Your task to perform on an android device: set the stopwatch Image 0: 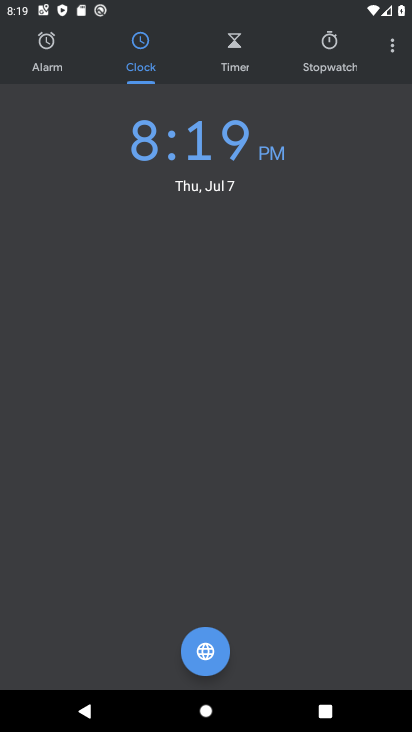
Step 0: press home button
Your task to perform on an android device: set the stopwatch Image 1: 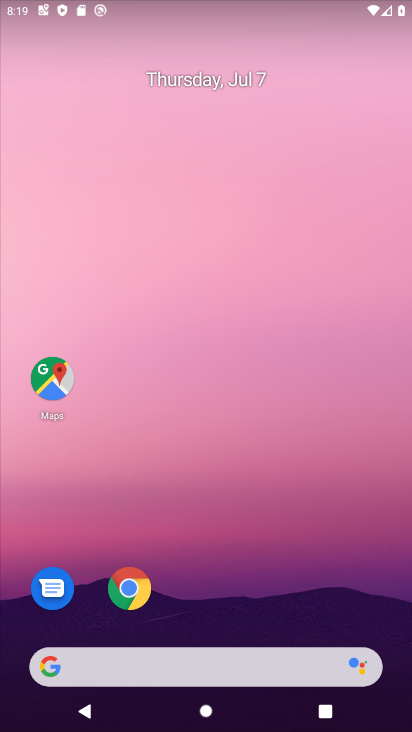
Step 1: drag from (225, 655) to (387, 92)
Your task to perform on an android device: set the stopwatch Image 2: 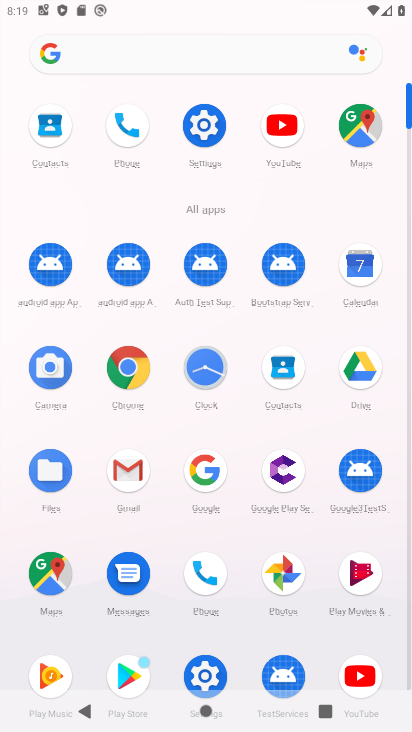
Step 2: click (204, 376)
Your task to perform on an android device: set the stopwatch Image 3: 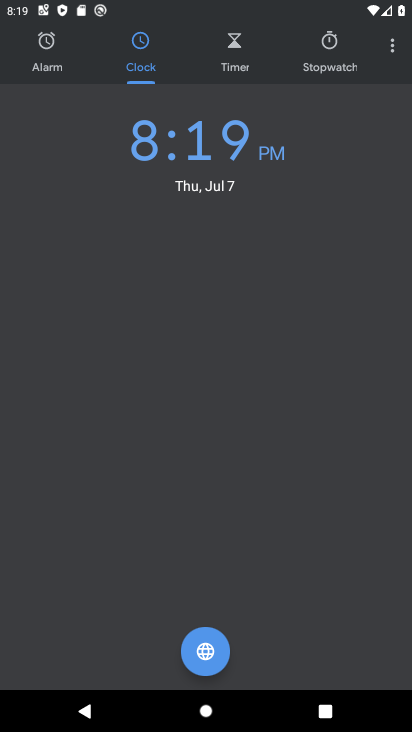
Step 3: click (327, 56)
Your task to perform on an android device: set the stopwatch Image 4: 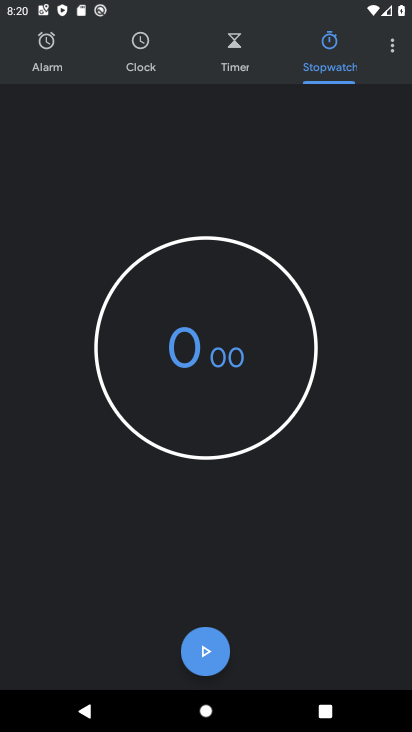
Step 4: click (189, 340)
Your task to perform on an android device: set the stopwatch Image 5: 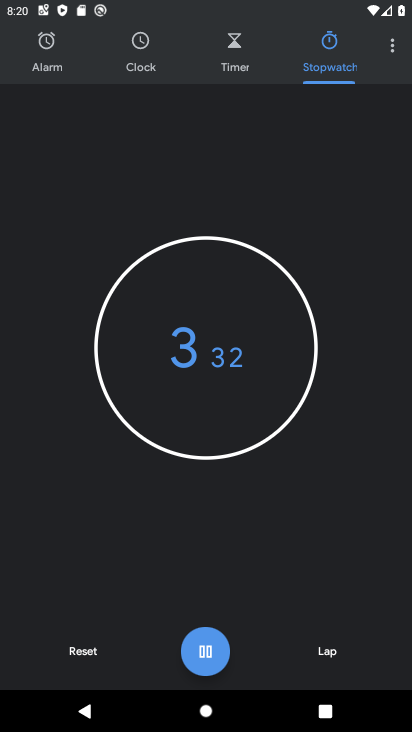
Step 5: click (207, 355)
Your task to perform on an android device: set the stopwatch Image 6: 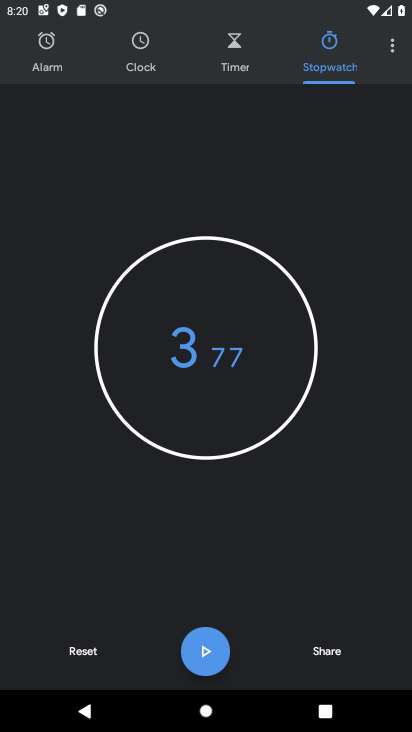
Step 6: task complete